Your task to perform on an android device: Go to battery settings Image 0: 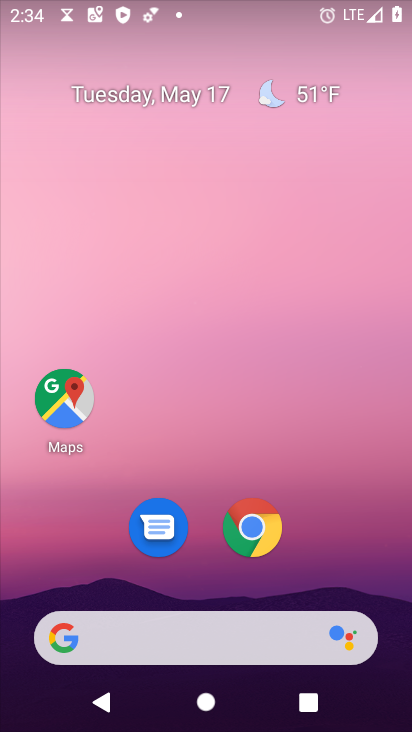
Step 0: drag from (344, 546) to (252, 131)
Your task to perform on an android device: Go to battery settings Image 1: 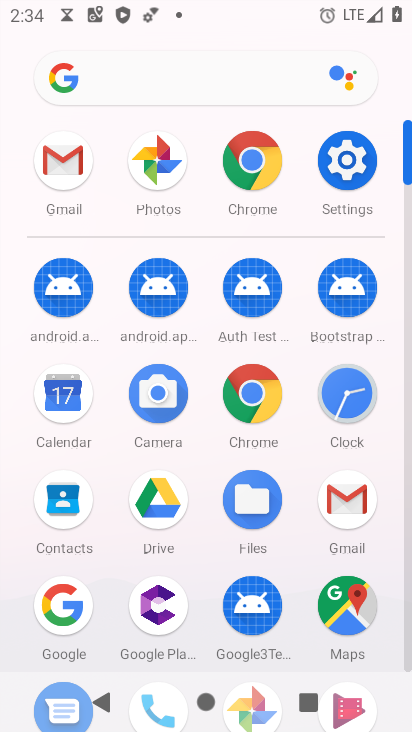
Step 1: click (347, 159)
Your task to perform on an android device: Go to battery settings Image 2: 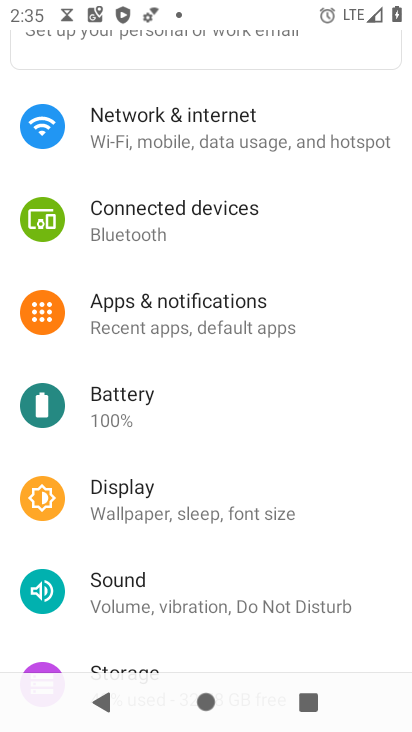
Step 2: drag from (213, 449) to (254, 361)
Your task to perform on an android device: Go to battery settings Image 3: 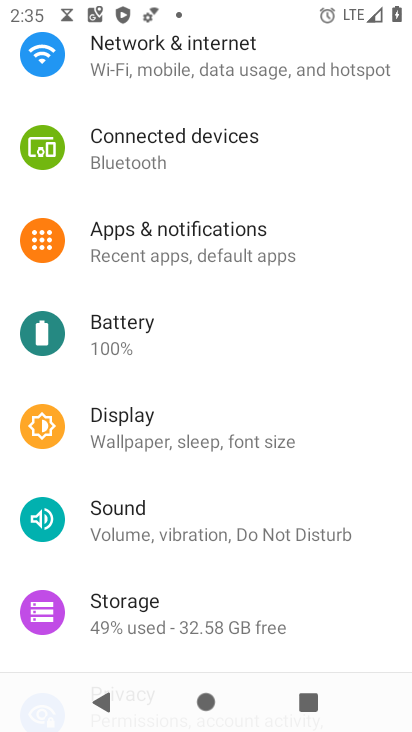
Step 3: click (129, 336)
Your task to perform on an android device: Go to battery settings Image 4: 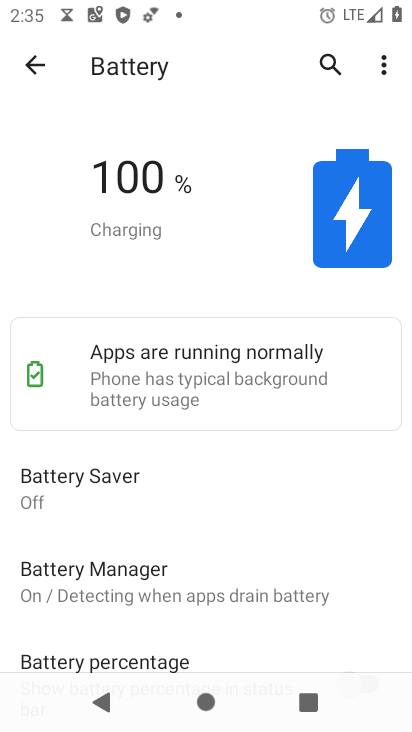
Step 4: task complete